Your task to perform on an android device: Clear all items from cart on target.com. Add bose soundsport free to the cart on target.com, then select checkout. Image 0: 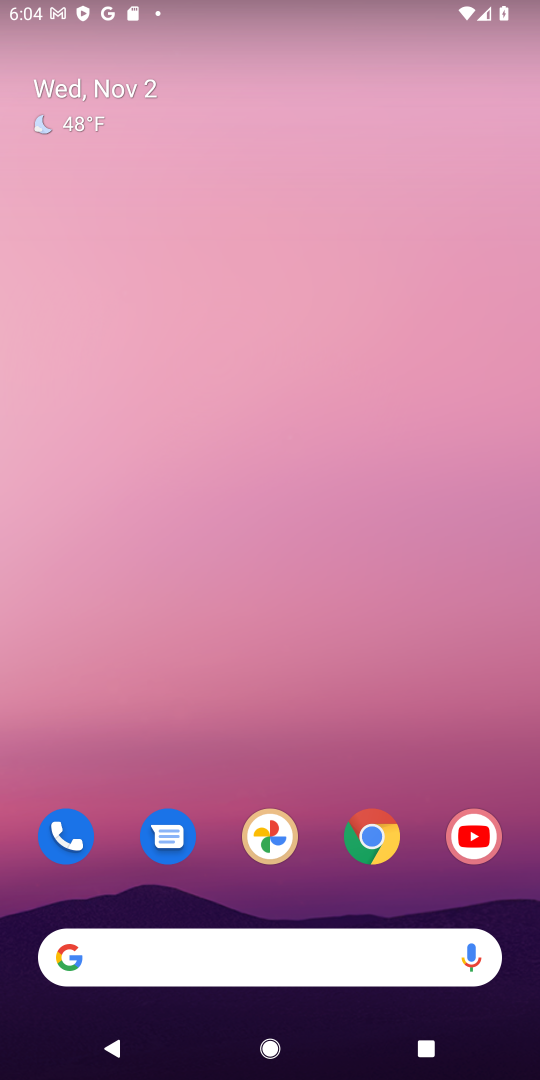
Step 0: drag from (184, 943) to (189, 370)
Your task to perform on an android device: Clear all items from cart on target.com. Add bose soundsport free to the cart on target.com, then select checkout. Image 1: 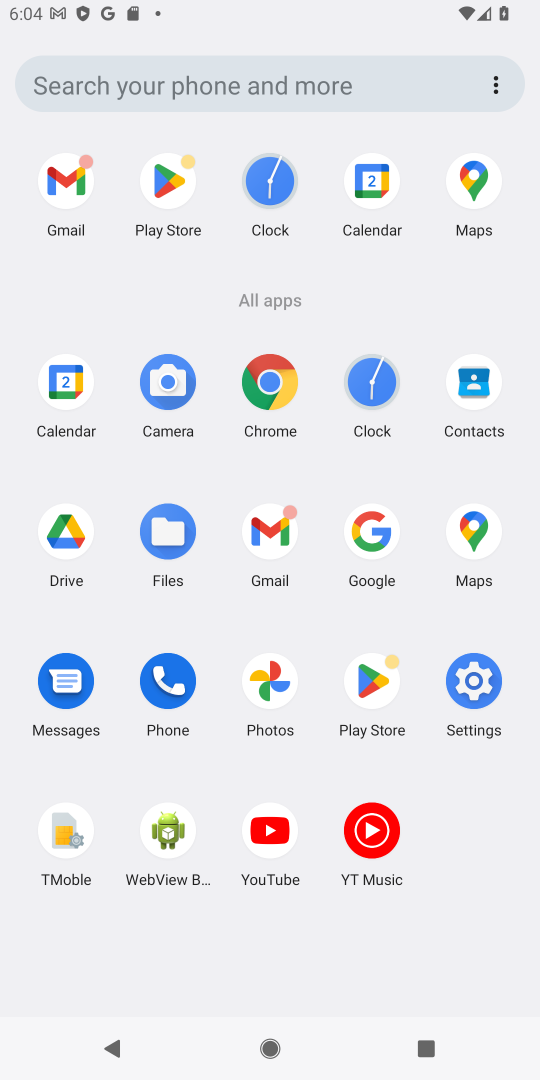
Step 1: click (372, 528)
Your task to perform on an android device: Clear all items from cart on target.com. Add bose soundsport free to the cart on target.com, then select checkout. Image 2: 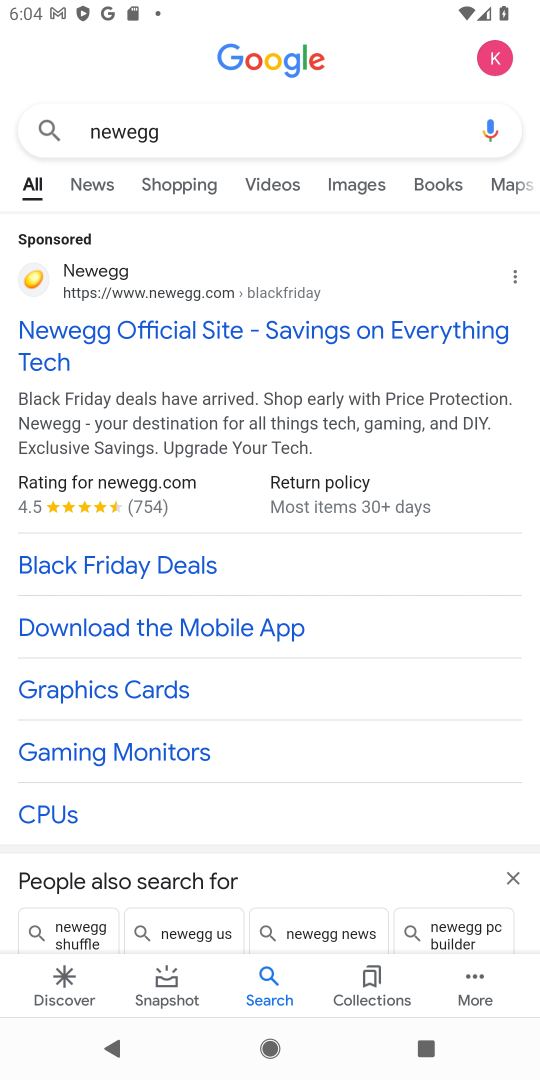
Step 2: click (150, 131)
Your task to perform on an android device: Clear all items from cart on target.com. Add bose soundsport free to the cart on target.com, then select checkout. Image 3: 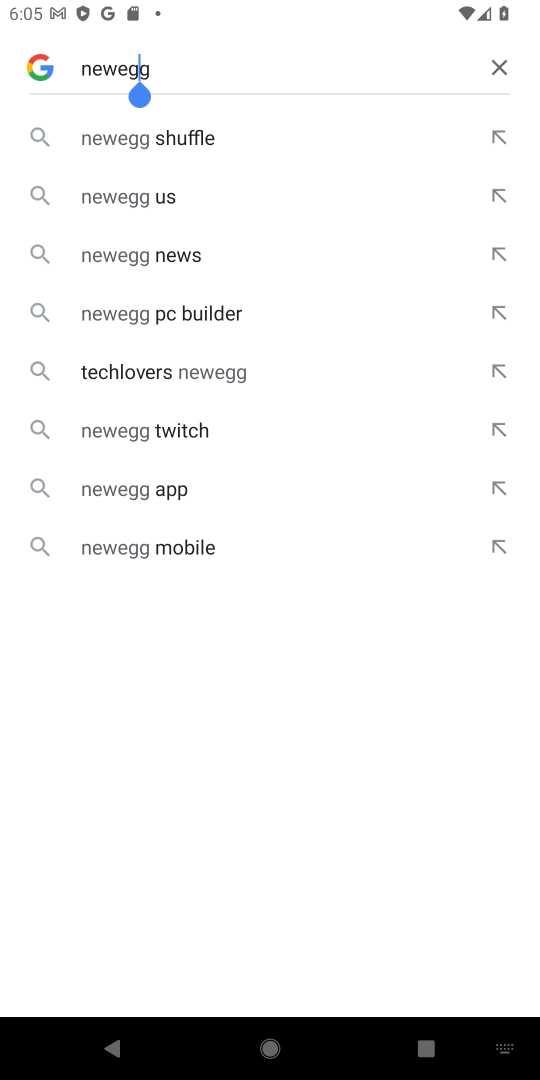
Step 3: click (492, 71)
Your task to perform on an android device: Clear all items from cart on target.com. Add bose soundsport free to the cart on target.com, then select checkout. Image 4: 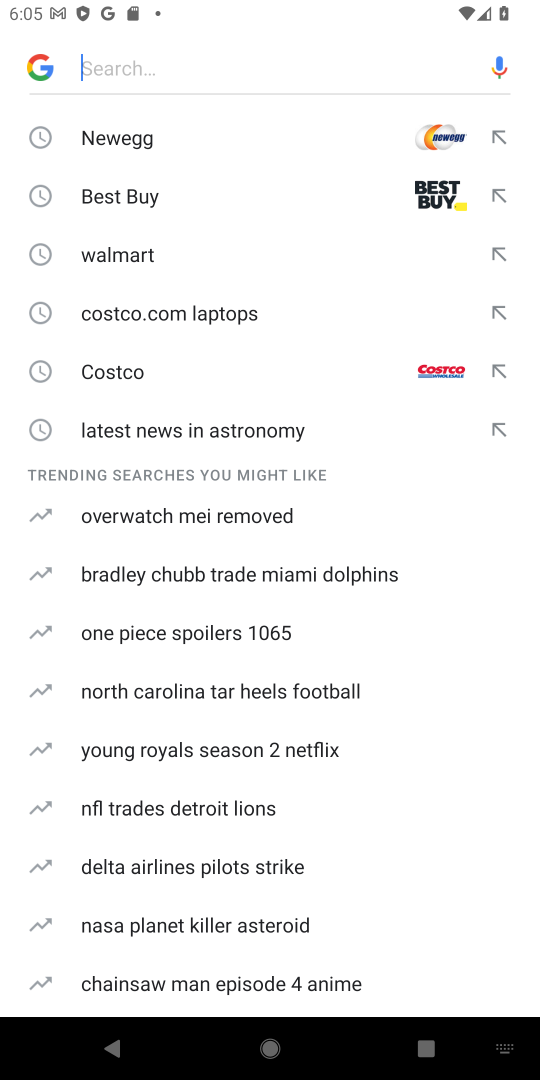
Step 4: type "target.com"
Your task to perform on an android device: Clear all items from cart on target.com. Add bose soundsport free to the cart on target.com, then select checkout. Image 5: 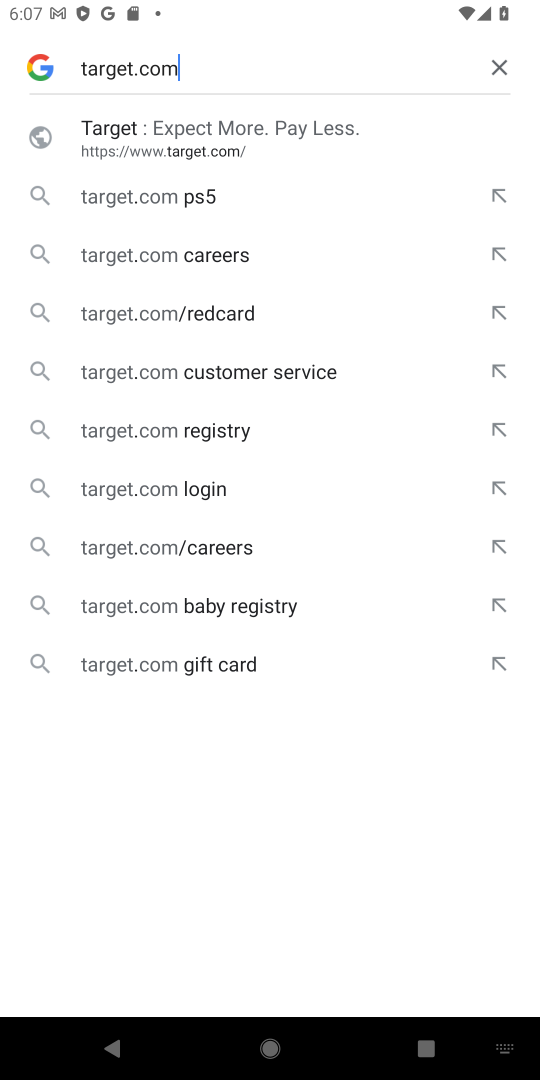
Step 5: click (160, 146)
Your task to perform on an android device: Clear all items from cart on target.com. Add bose soundsport free to the cart on target.com, then select checkout. Image 6: 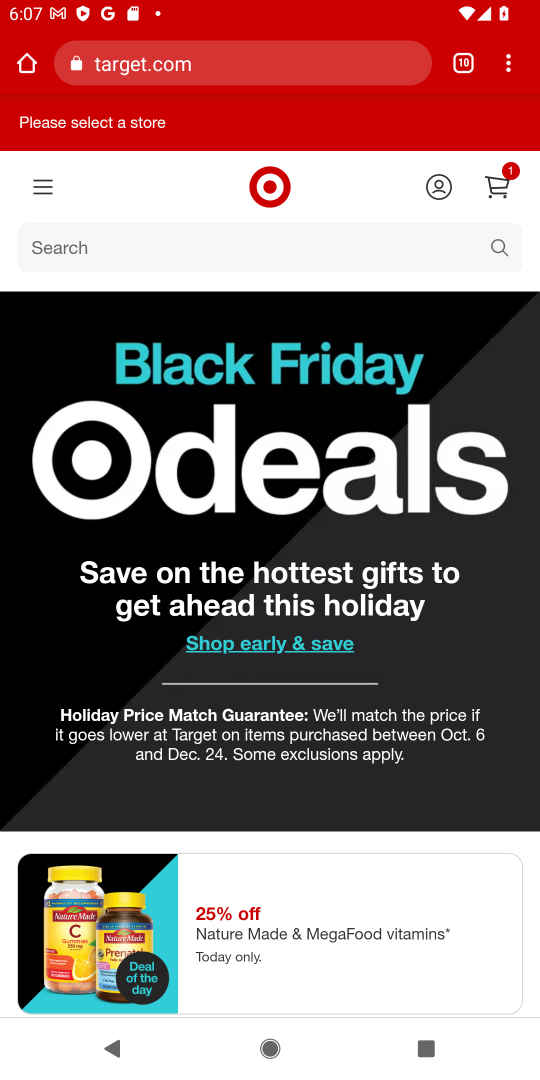
Step 6: click (427, 247)
Your task to perform on an android device: Clear all items from cart on target.com. Add bose soundsport free to the cart on target.com, then select checkout. Image 7: 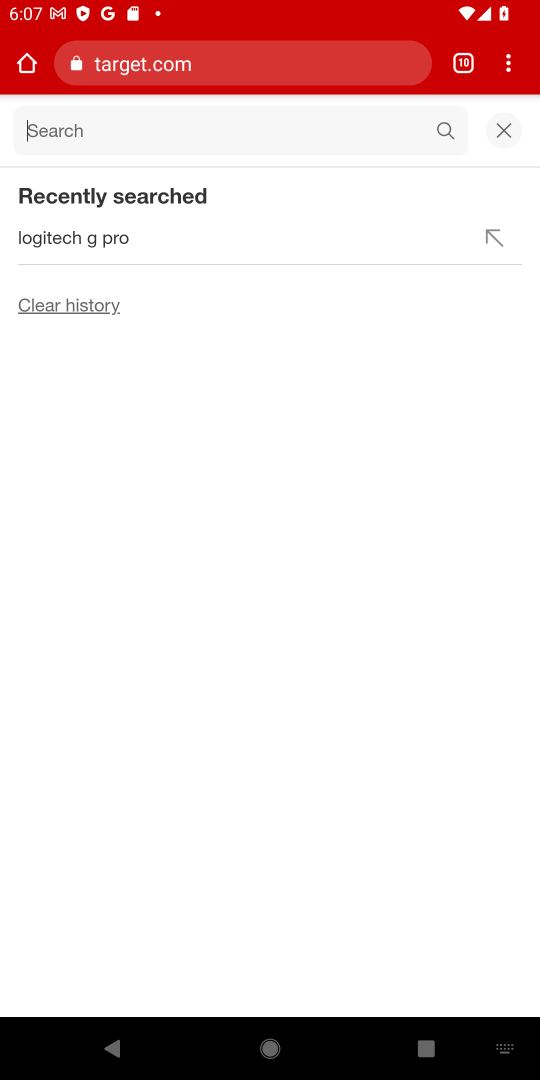
Step 7: click (503, 134)
Your task to perform on an android device: Clear all items from cart on target.com. Add bose soundsport free to the cart on target.com, then select checkout. Image 8: 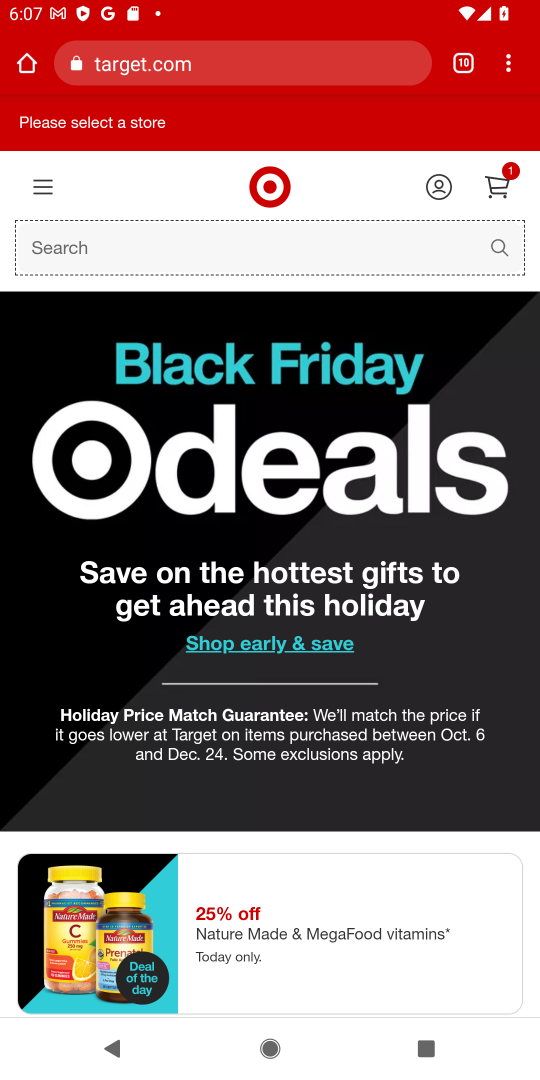
Step 8: click (510, 180)
Your task to perform on an android device: Clear all items from cart on target.com. Add bose soundsport free to the cart on target.com, then select checkout. Image 9: 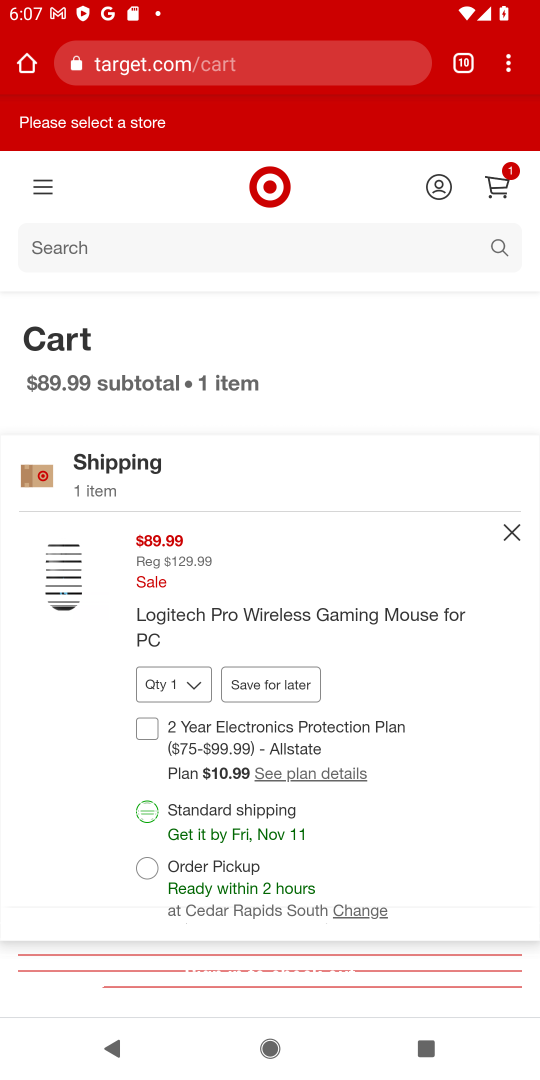
Step 9: click (509, 533)
Your task to perform on an android device: Clear all items from cart on target.com. Add bose soundsport free to the cart on target.com, then select checkout. Image 10: 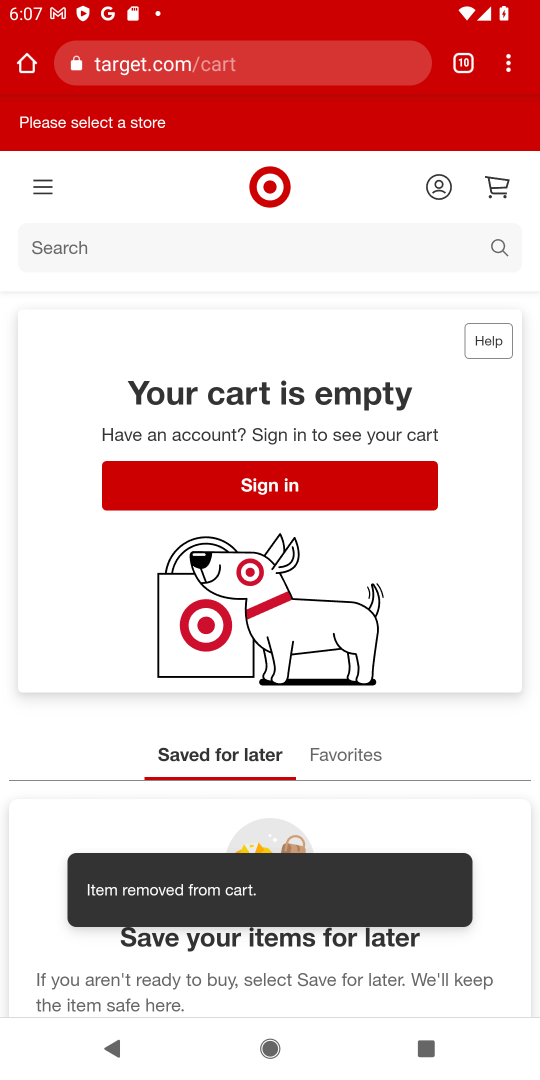
Step 10: click (397, 240)
Your task to perform on an android device: Clear all items from cart on target.com. Add bose soundsport free to the cart on target.com, then select checkout. Image 11: 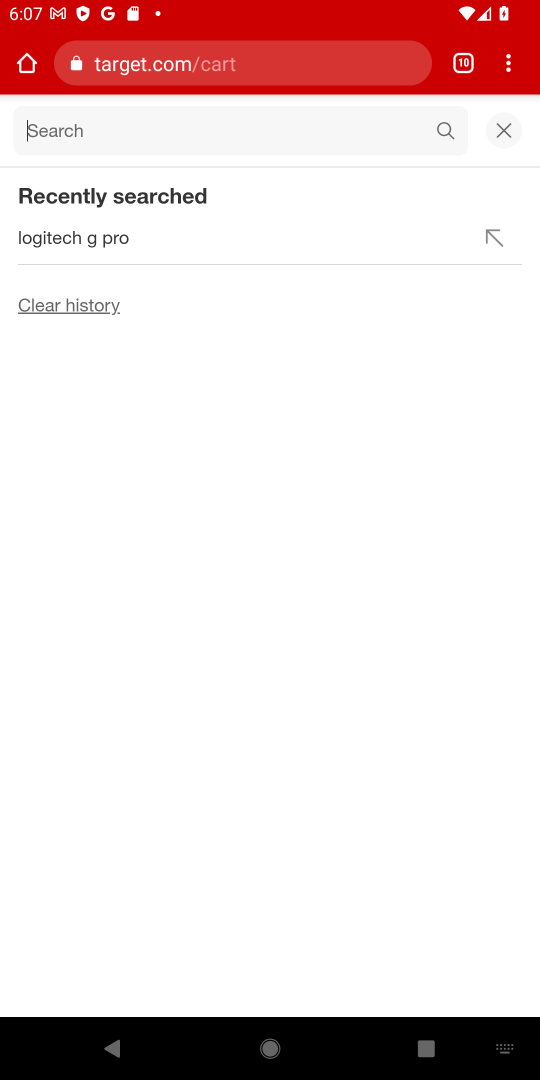
Step 11: type "bose soundsport free"
Your task to perform on an android device: Clear all items from cart on target.com. Add bose soundsport free to the cart on target.com, then select checkout. Image 12: 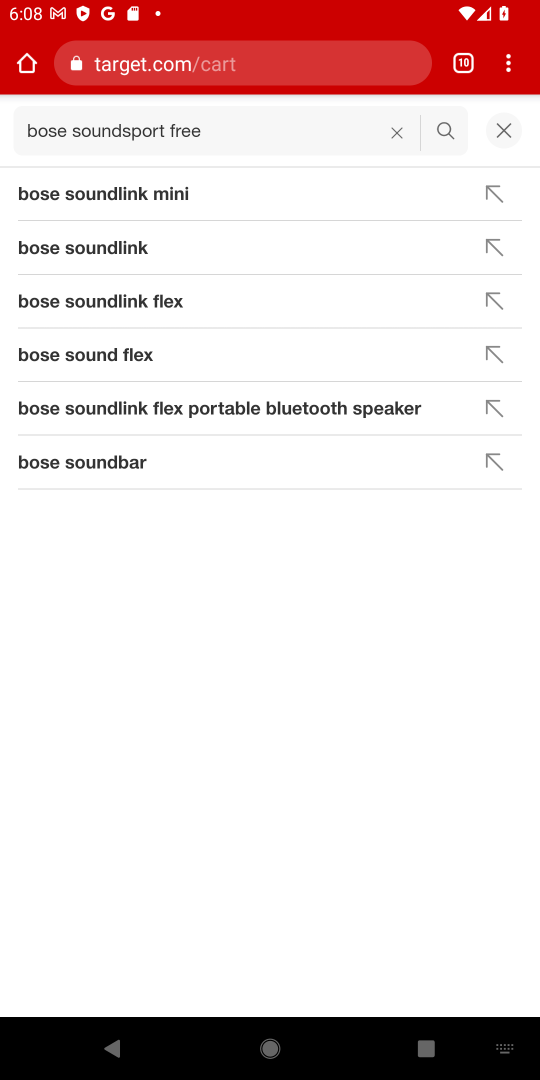
Step 12: click (112, 188)
Your task to perform on an android device: Clear all items from cart on target.com. Add bose soundsport free to the cart on target.com, then select checkout. Image 13: 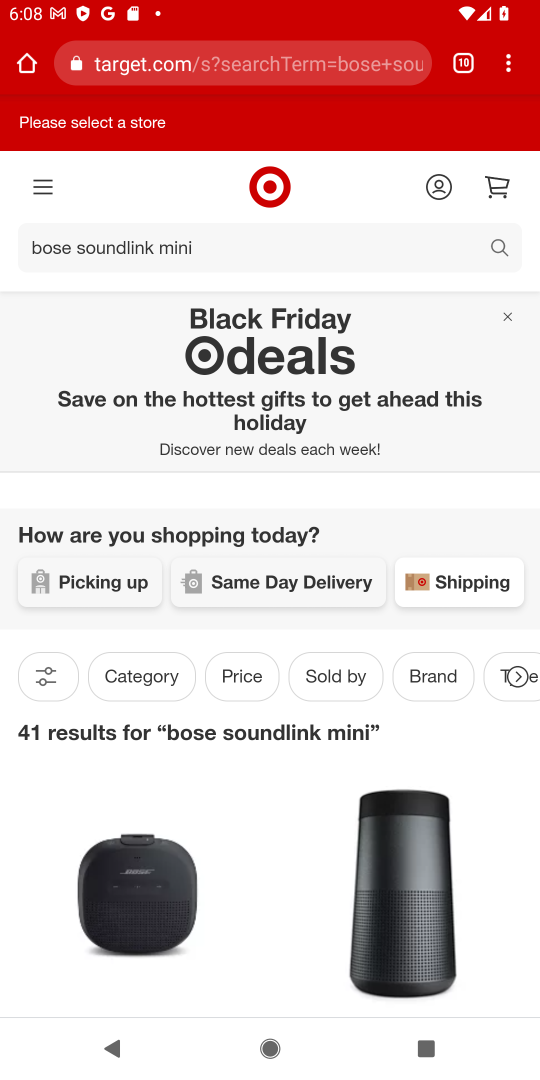
Step 13: drag from (178, 976) to (232, 529)
Your task to perform on an android device: Clear all items from cart on target.com. Add bose soundsport free to the cart on target.com, then select checkout. Image 14: 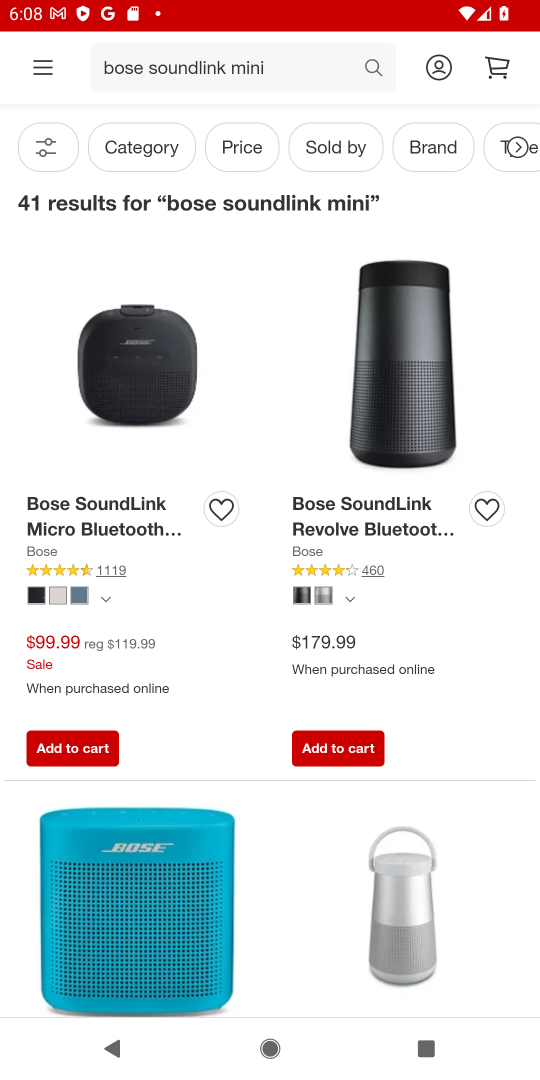
Step 14: click (78, 753)
Your task to perform on an android device: Clear all items from cart on target.com. Add bose soundsport free to the cart on target.com, then select checkout. Image 15: 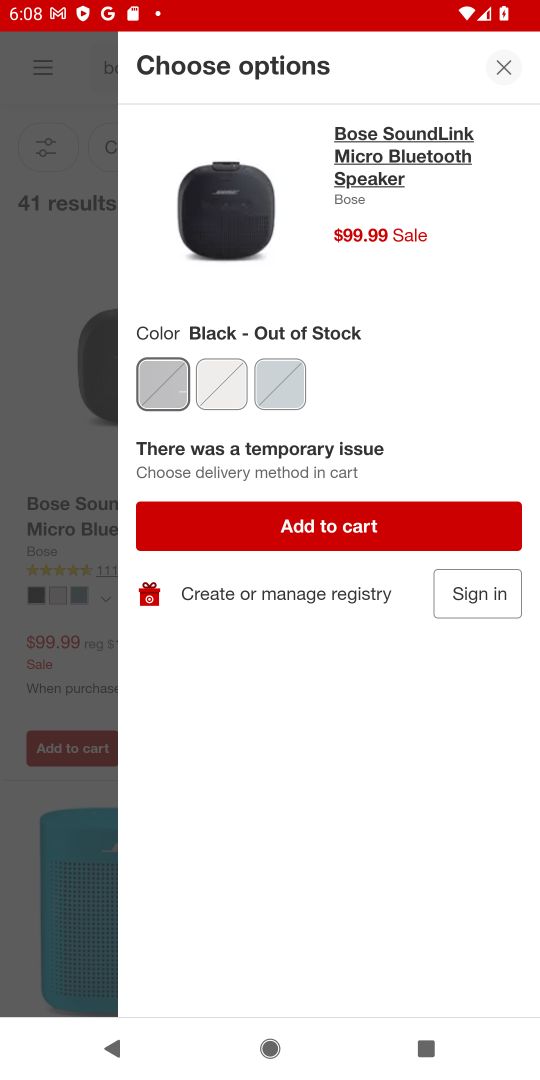
Step 15: task complete